Your task to perform on an android device: make emails show in primary in the gmail app Image 0: 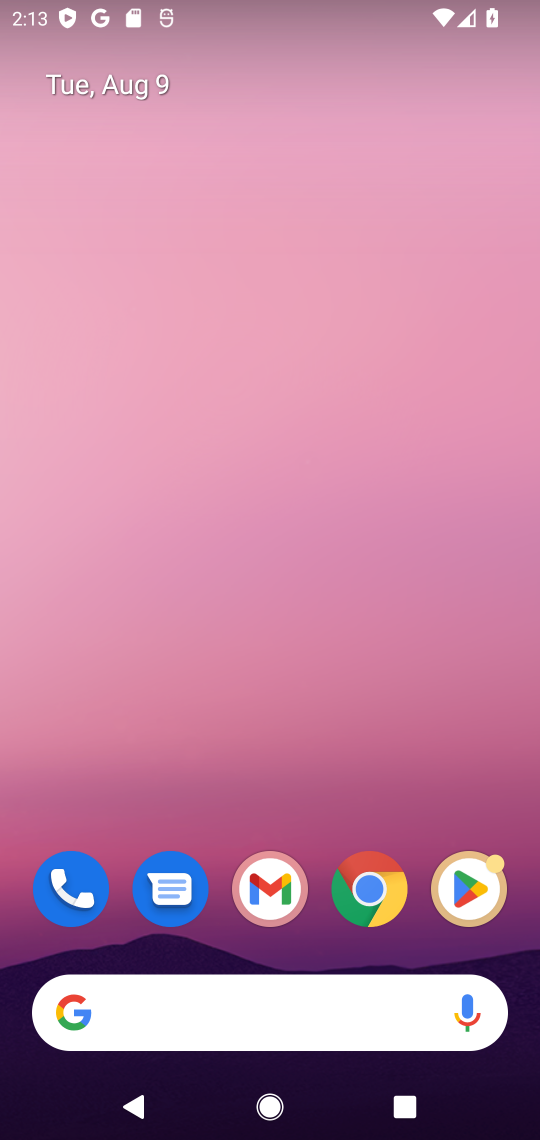
Step 0: click (267, 876)
Your task to perform on an android device: make emails show in primary in the gmail app Image 1: 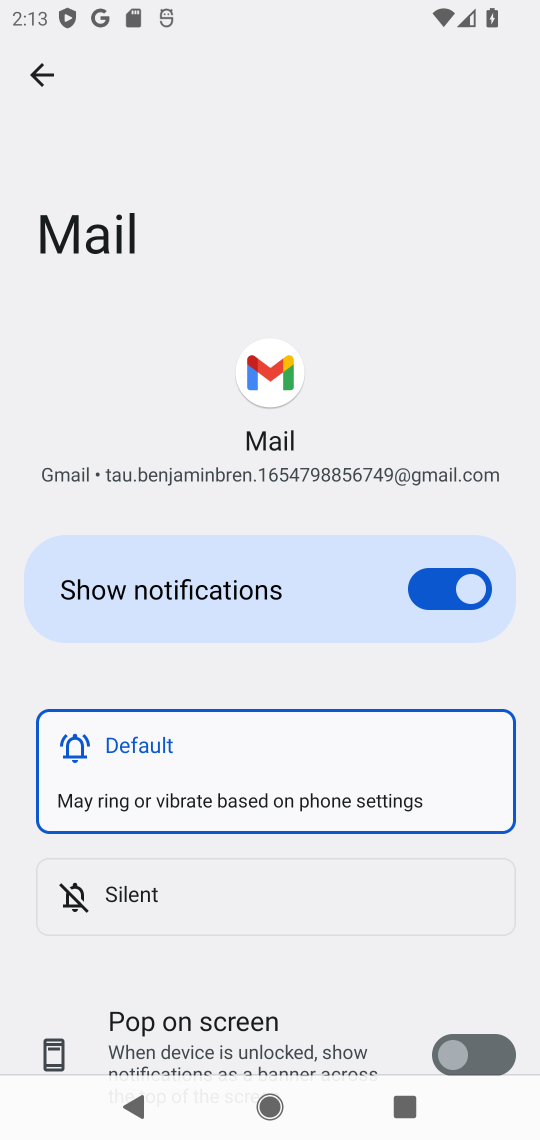
Step 1: click (37, 74)
Your task to perform on an android device: make emails show in primary in the gmail app Image 2: 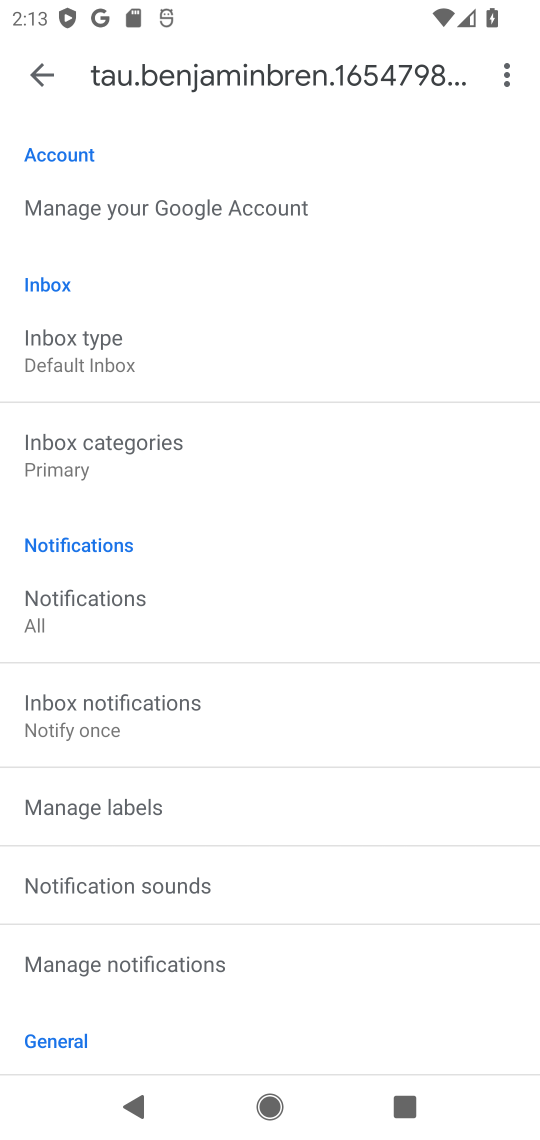
Step 2: click (90, 344)
Your task to perform on an android device: make emails show in primary in the gmail app Image 3: 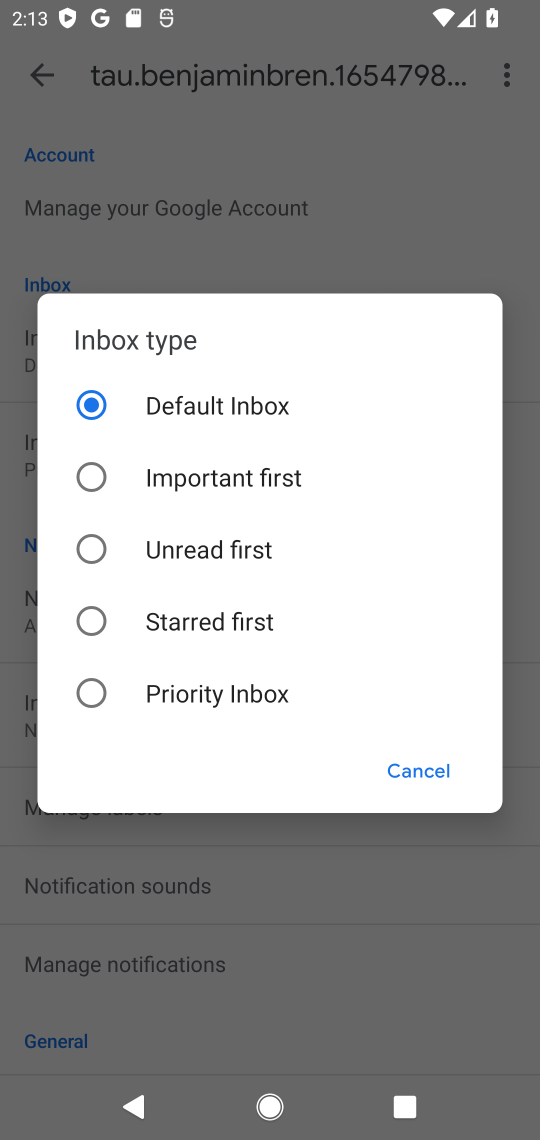
Step 3: click (271, 403)
Your task to perform on an android device: make emails show in primary in the gmail app Image 4: 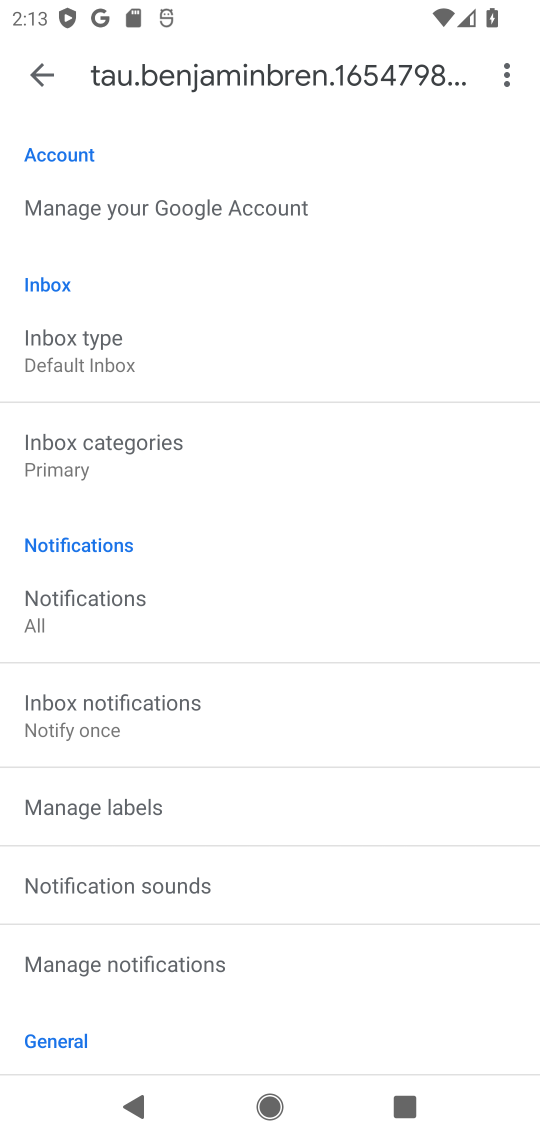
Step 4: click (178, 468)
Your task to perform on an android device: make emails show in primary in the gmail app Image 5: 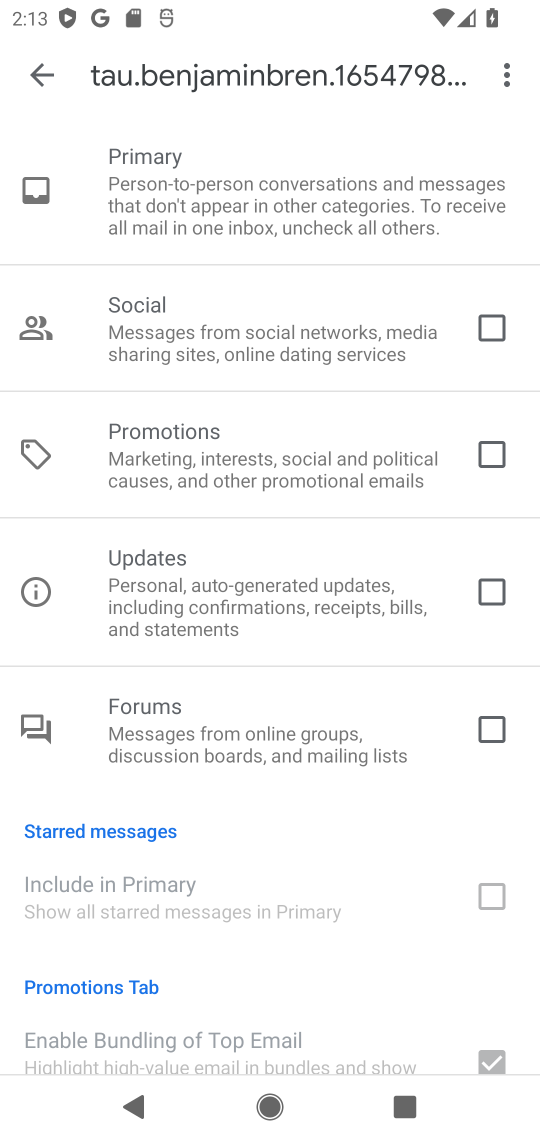
Step 5: task complete